Your task to perform on an android device: Open the calendar and show me this week's events Image 0: 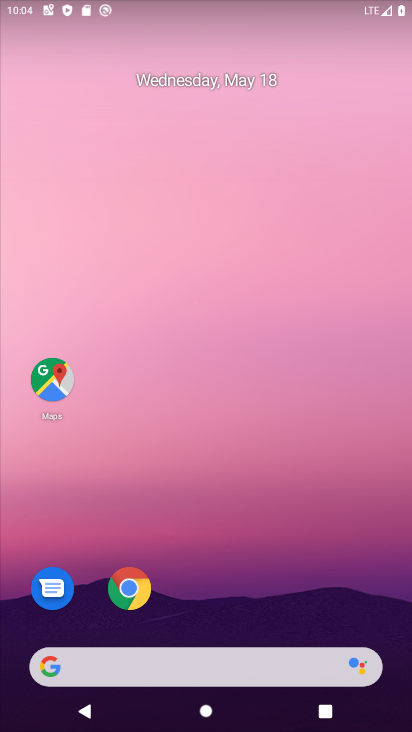
Step 0: drag from (391, 621) to (408, 368)
Your task to perform on an android device: Open the calendar and show me this week's events Image 1: 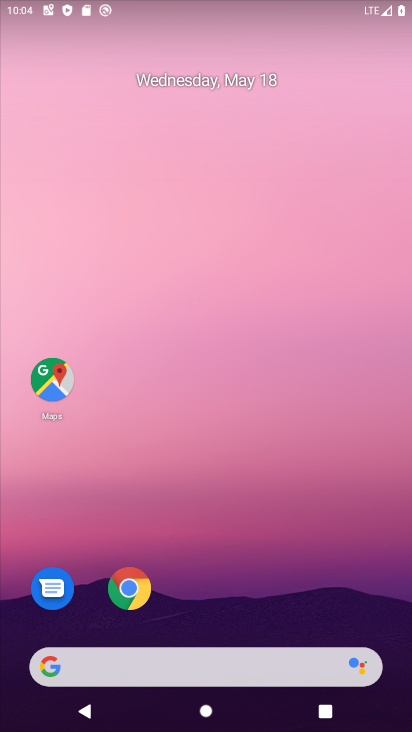
Step 1: drag from (329, 610) to (373, 9)
Your task to perform on an android device: Open the calendar and show me this week's events Image 2: 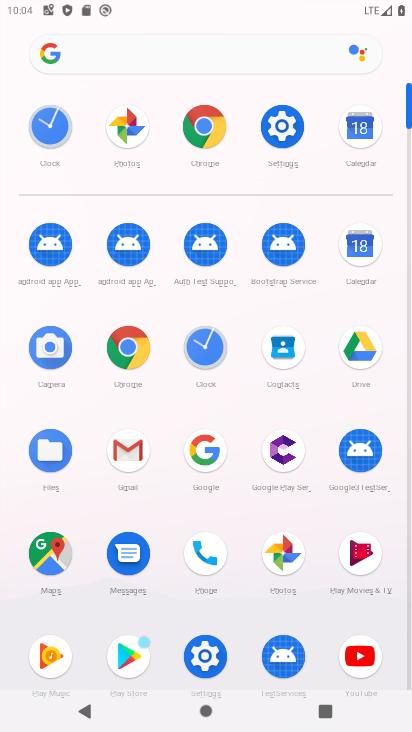
Step 2: click (362, 127)
Your task to perform on an android device: Open the calendar and show me this week's events Image 3: 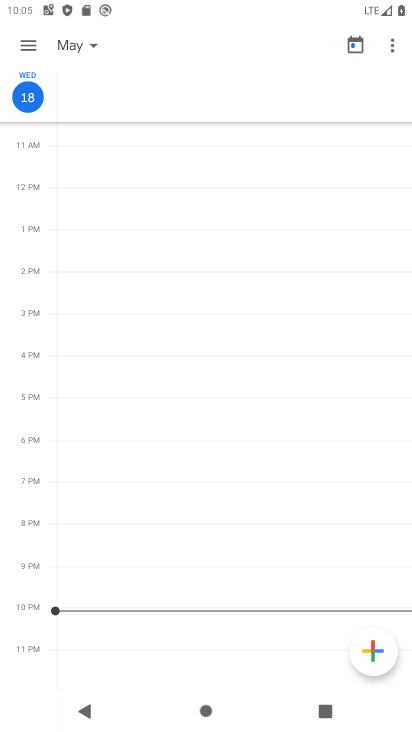
Step 3: click (36, 48)
Your task to perform on an android device: Open the calendar and show me this week's events Image 4: 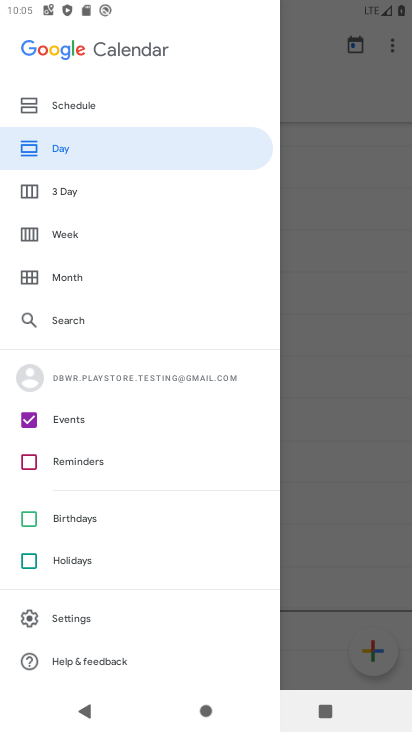
Step 4: click (73, 231)
Your task to perform on an android device: Open the calendar and show me this week's events Image 5: 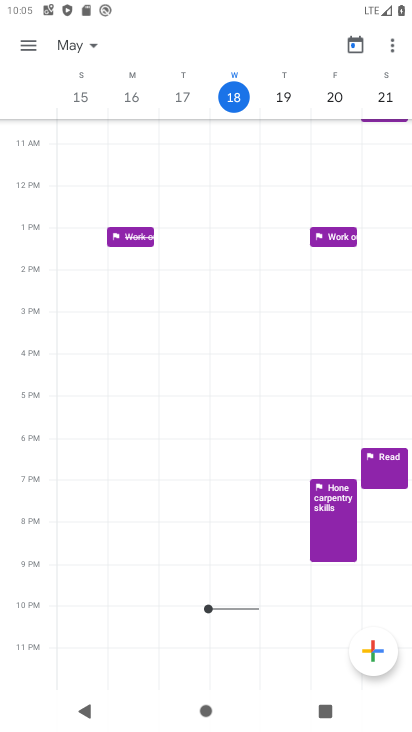
Step 5: click (20, 45)
Your task to perform on an android device: Open the calendar and show me this week's events Image 6: 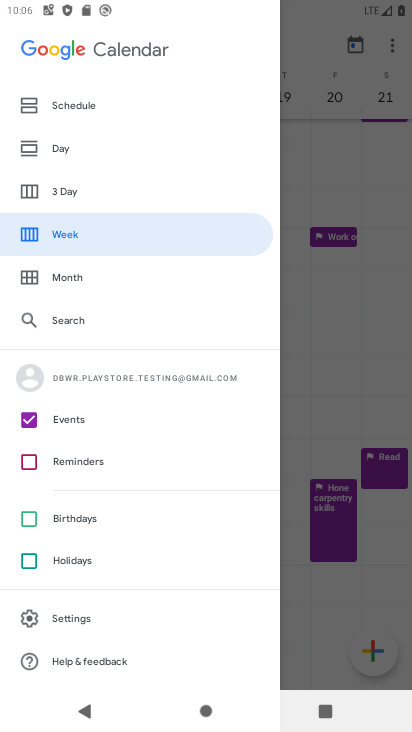
Step 6: click (62, 234)
Your task to perform on an android device: Open the calendar and show me this week's events Image 7: 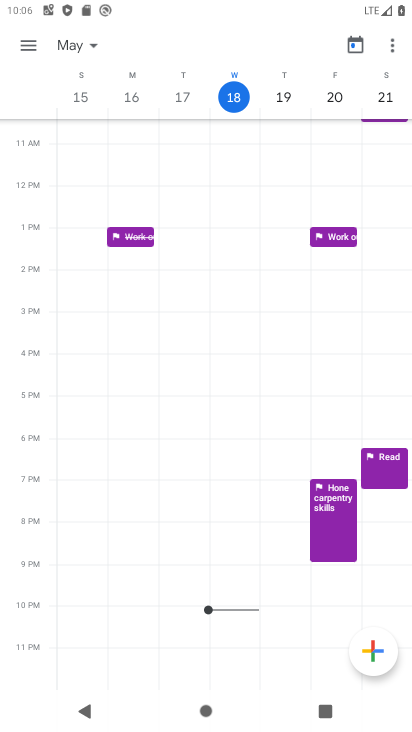
Step 7: task complete